Your task to perform on an android device: Open ESPN.com Image 0: 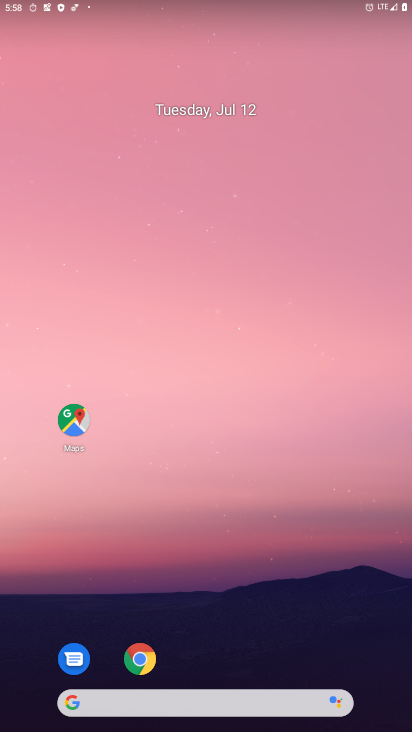
Step 0: drag from (223, 365) to (223, 201)
Your task to perform on an android device: Open ESPN.com Image 1: 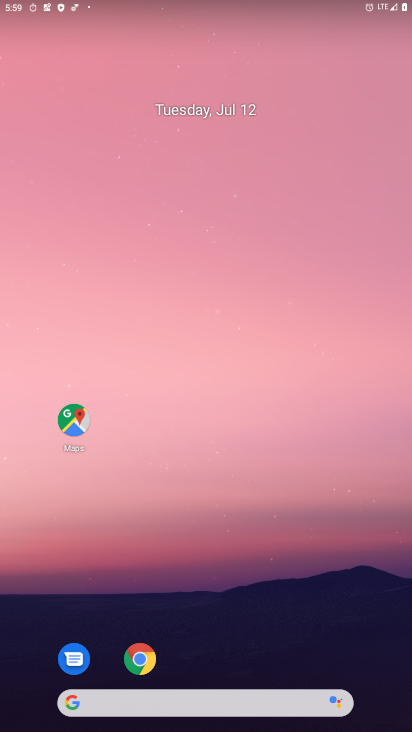
Step 1: click (137, 655)
Your task to perform on an android device: Open ESPN.com Image 2: 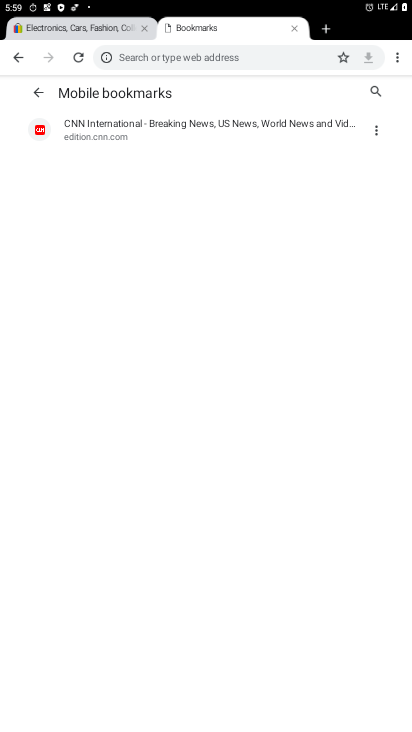
Step 2: click (296, 106)
Your task to perform on an android device: Open ESPN.com Image 3: 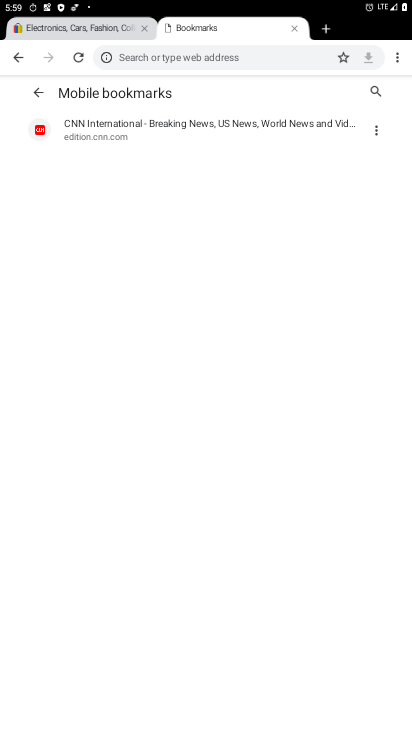
Step 3: click (298, 30)
Your task to perform on an android device: Open ESPN.com Image 4: 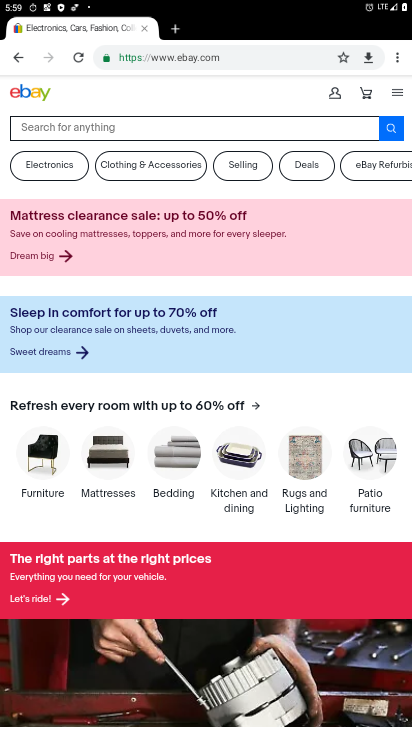
Step 4: press back button
Your task to perform on an android device: Open ESPN.com Image 5: 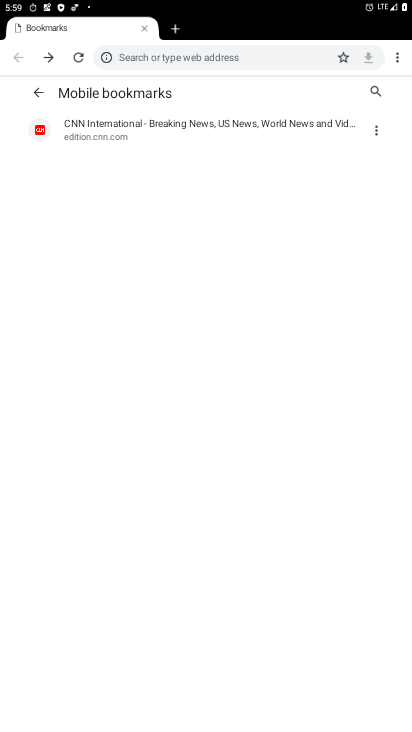
Step 5: press back button
Your task to perform on an android device: Open ESPN.com Image 6: 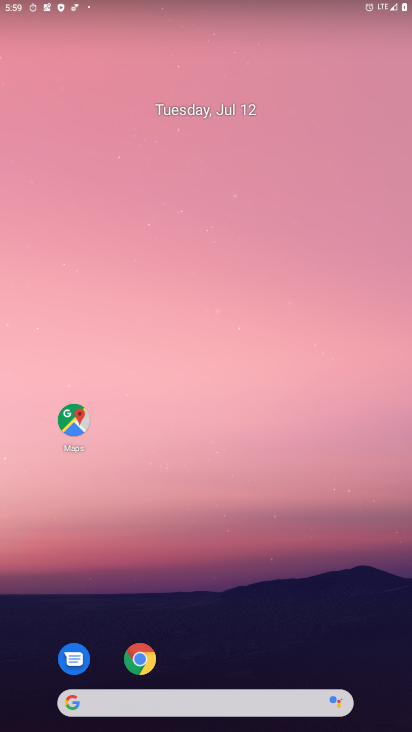
Step 6: click (146, 657)
Your task to perform on an android device: Open ESPN.com Image 7: 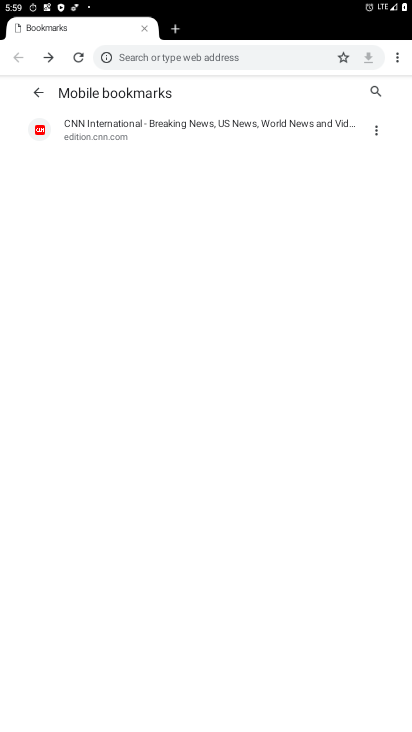
Step 7: click (220, 58)
Your task to perform on an android device: Open ESPN.com Image 8: 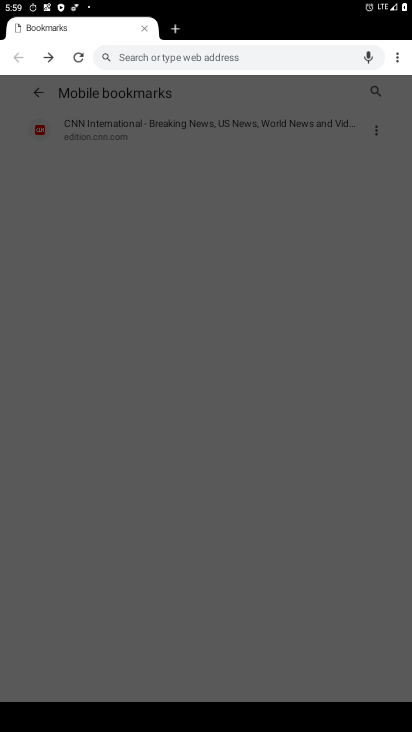
Step 8: type "www.espn.com"
Your task to perform on an android device: Open ESPN.com Image 9: 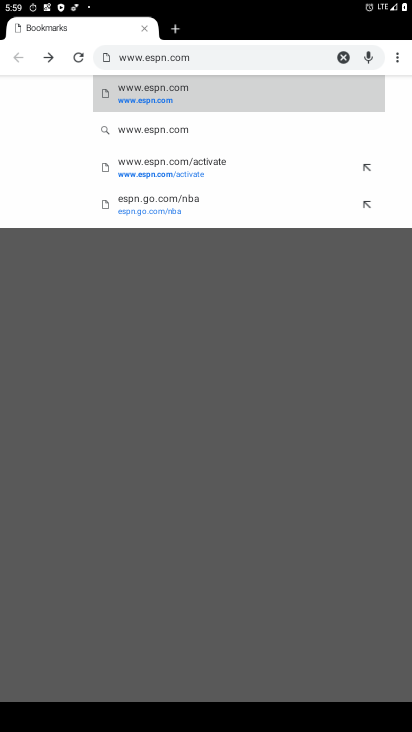
Step 9: click (152, 100)
Your task to perform on an android device: Open ESPN.com Image 10: 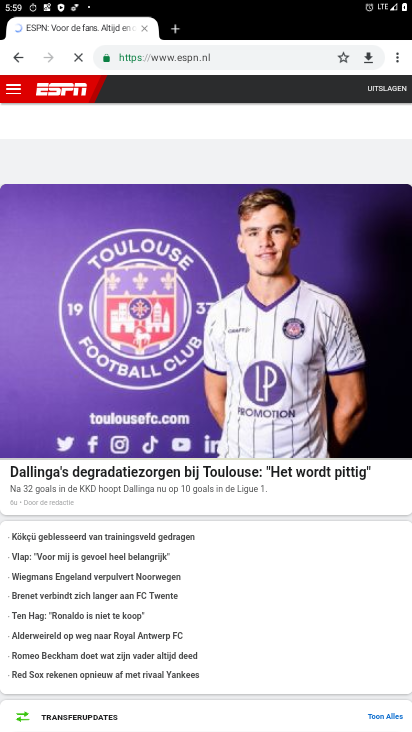
Step 10: task complete